Your task to perform on an android device: Open the calendar and show me this week's events? Image 0: 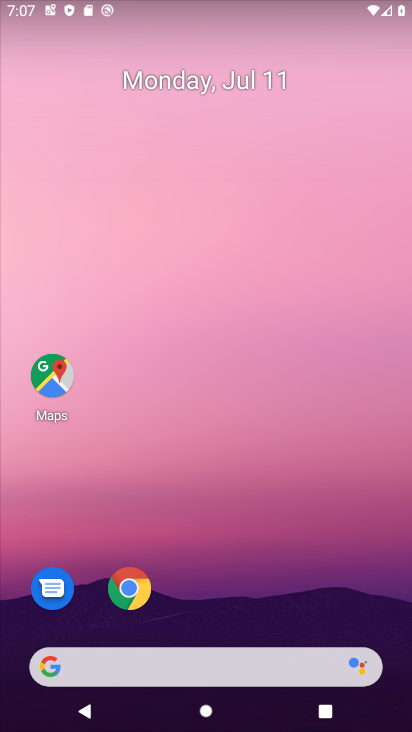
Step 0: drag from (375, 659) to (174, 95)
Your task to perform on an android device: Open the calendar and show me this week's events? Image 1: 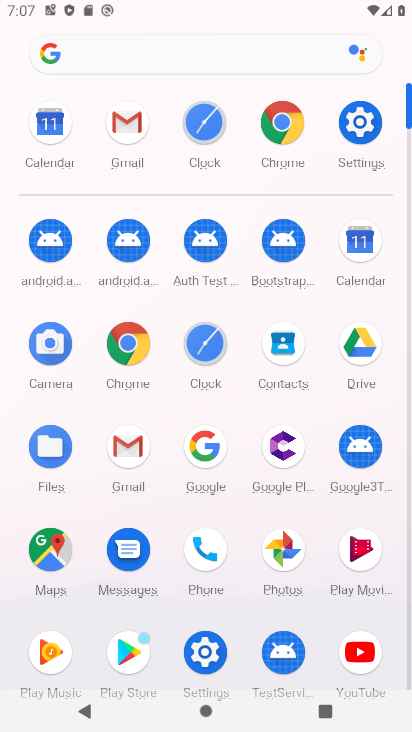
Step 1: click (356, 243)
Your task to perform on an android device: Open the calendar and show me this week's events? Image 2: 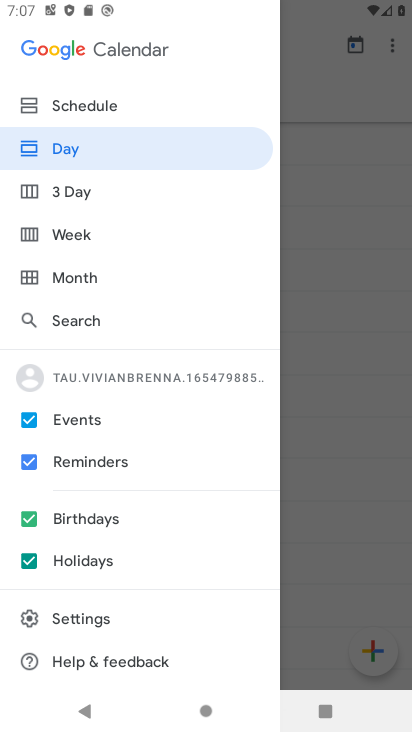
Step 2: task complete